Your task to perform on an android device: open a bookmark in the chrome app Image 0: 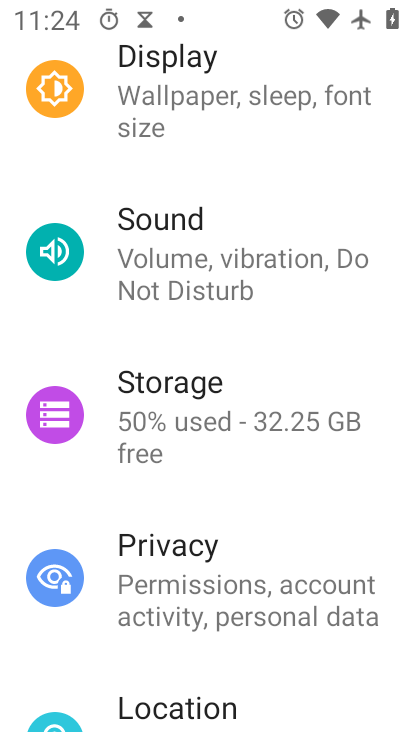
Step 0: press home button
Your task to perform on an android device: open a bookmark in the chrome app Image 1: 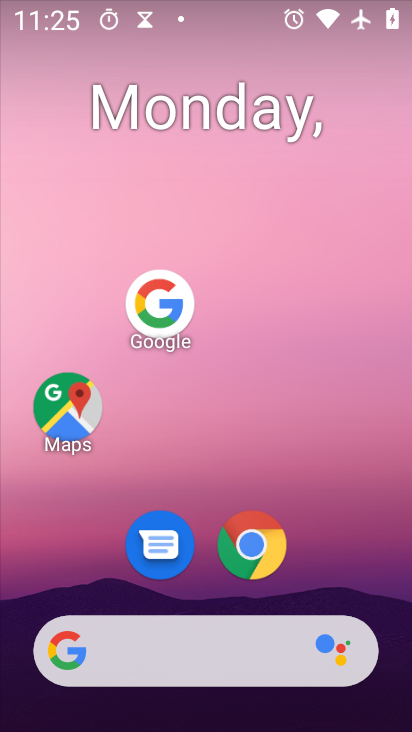
Step 1: click (258, 557)
Your task to perform on an android device: open a bookmark in the chrome app Image 2: 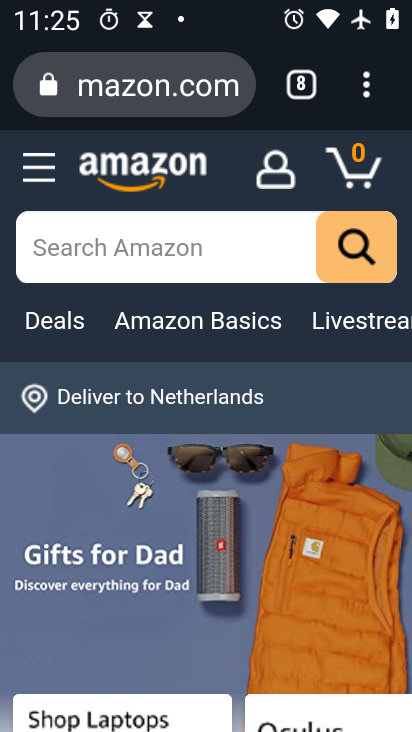
Step 2: task complete